Your task to perform on an android device: manage bookmarks in the chrome app Image 0: 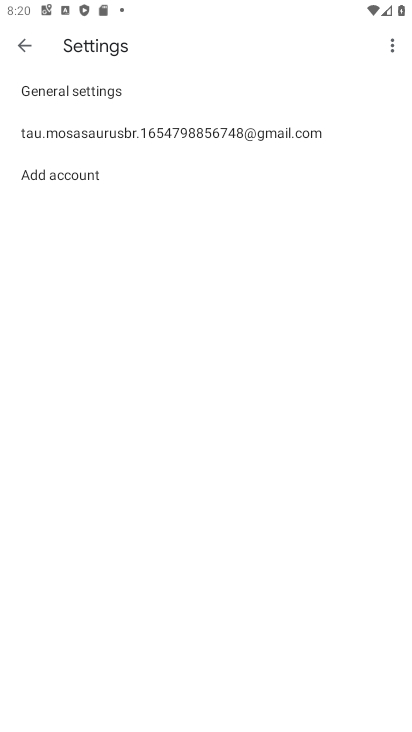
Step 0: press home button
Your task to perform on an android device: manage bookmarks in the chrome app Image 1: 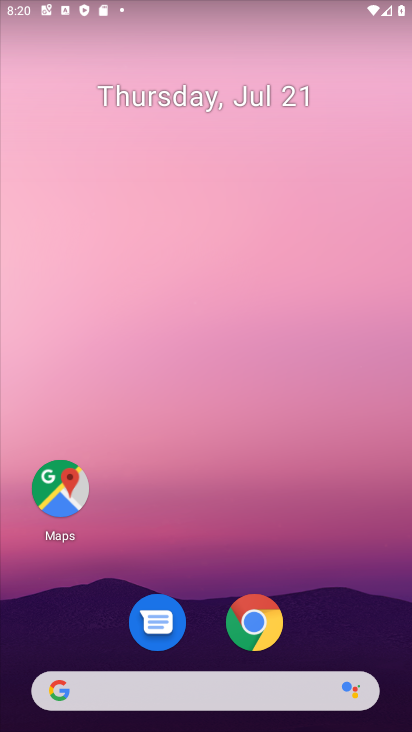
Step 1: click (260, 622)
Your task to perform on an android device: manage bookmarks in the chrome app Image 2: 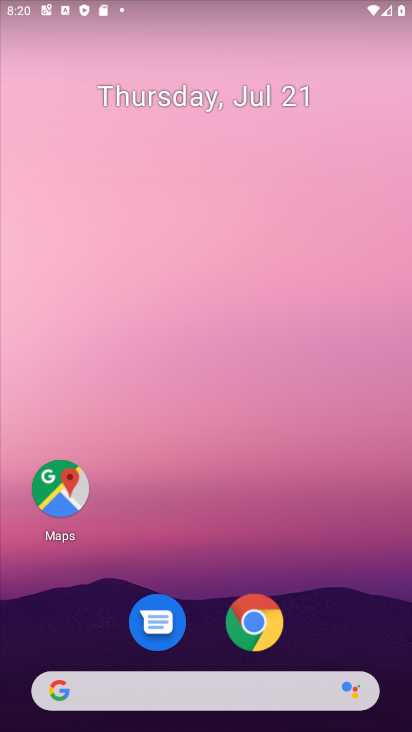
Step 2: click (260, 622)
Your task to perform on an android device: manage bookmarks in the chrome app Image 3: 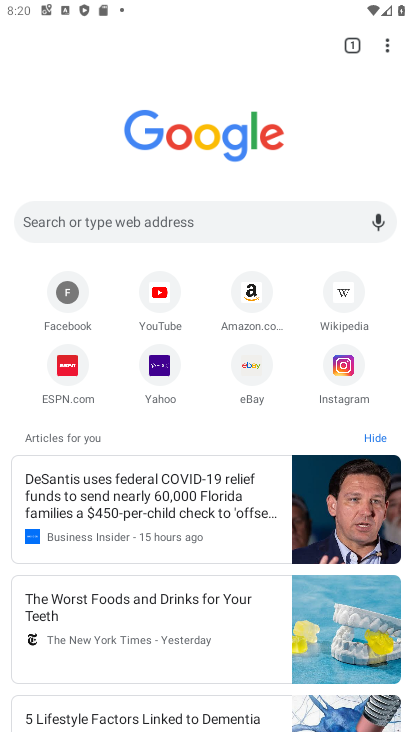
Step 3: click (386, 37)
Your task to perform on an android device: manage bookmarks in the chrome app Image 4: 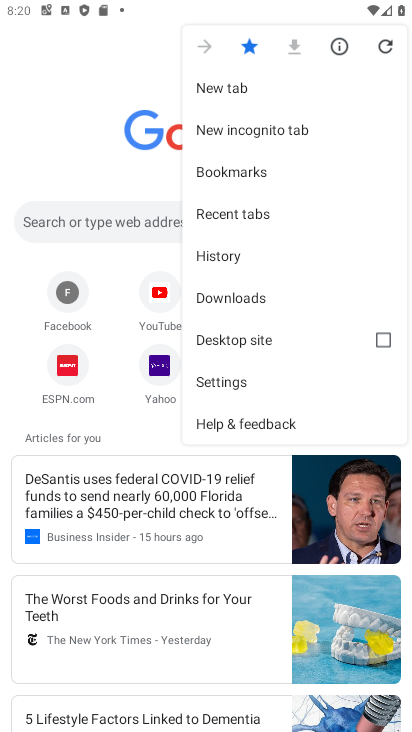
Step 4: click (266, 164)
Your task to perform on an android device: manage bookmarks in the chrome app Image 5: 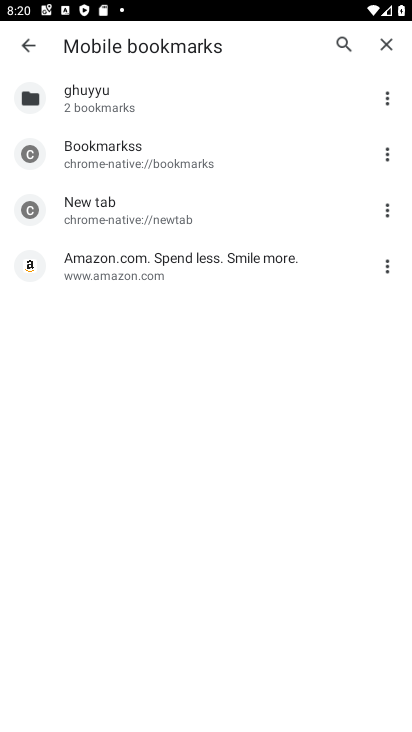
Step 5: click (394, 218)
Your task to perform on an android device: manage bookmarks in the chrome app Image 6: 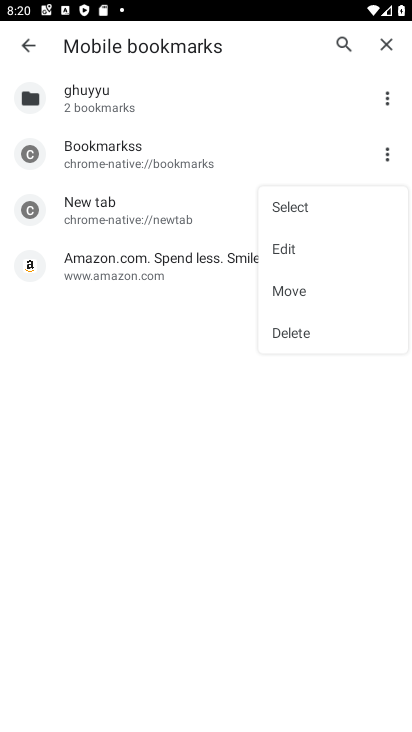
Step 6: click (324, 332)
Your task to perform on an android device: manage bookmarks in the chrome app Image 7: 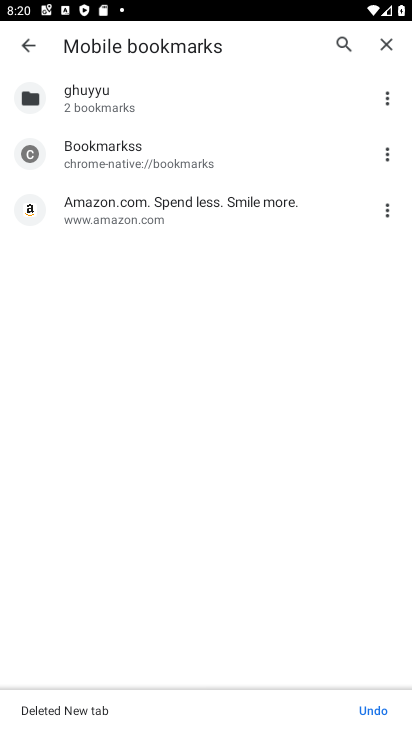
Step 7: task complete